Your task to perform on an android device: What's the weather going to be tomorrow? Image 0: 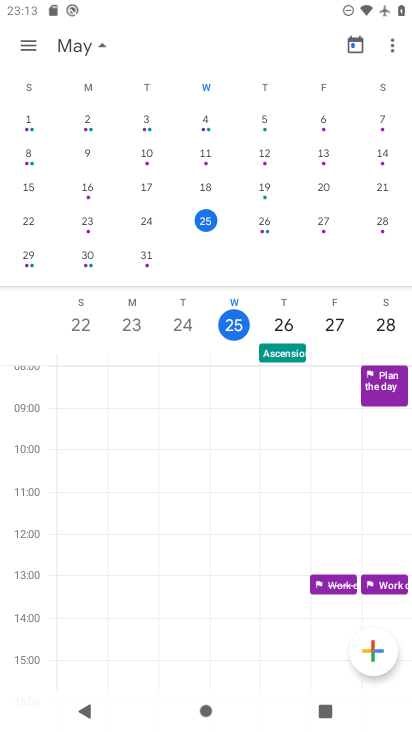
Step 0: press home button
Your task to perform on an android device: What's the weather going to be tomorrow? Image 1: 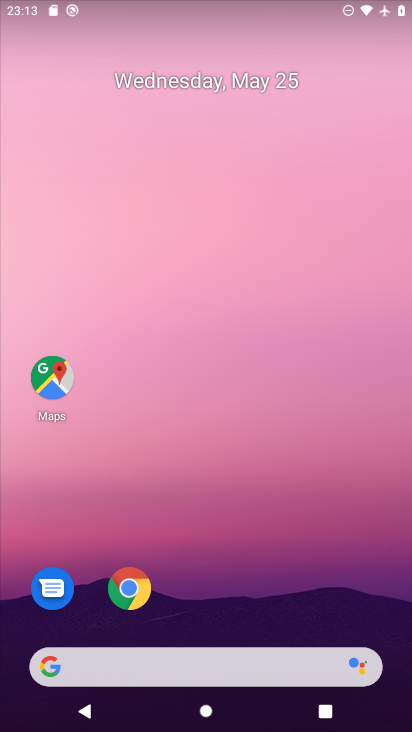
Step 1: drag from (238, 605) to (309, 119)
Your task to perform on an android device: What's the weather going to be tomorrow? Image 2: 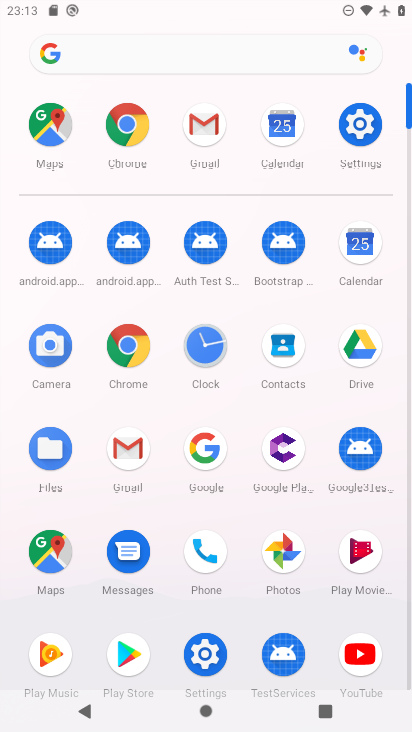
Step 2: click (120, 335)
Your task to perform on an android device: What's the weather going to be tomorrow? Image 3: 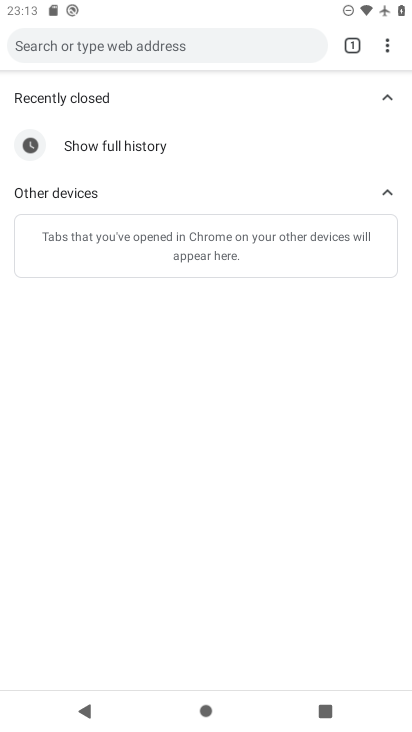
Step 3: click (205, 55)
Your task to perform on an android device: What's the weather going to be tomorrow? Image 4: 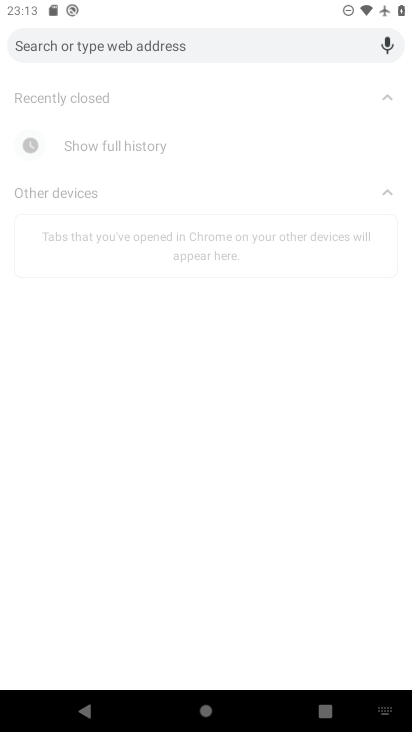
Step 4: type "weather"
Your task to perform on an android device: What's the weather going to be tomorrow? Image 5: 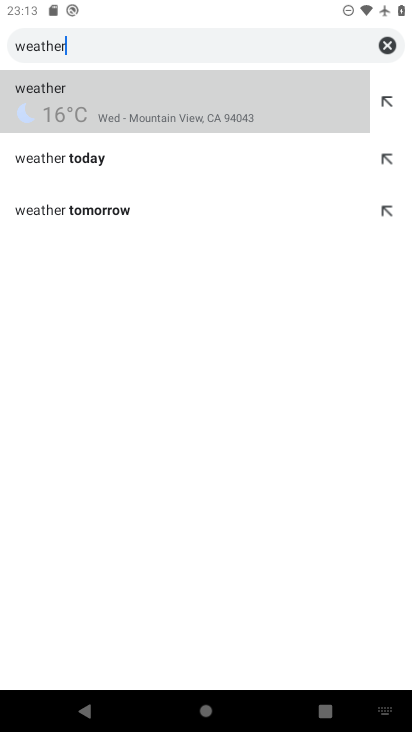
Step 5: click (90, 113)
Your task to perform on an android device: What's the weather going to be tomorrow? Image 6: 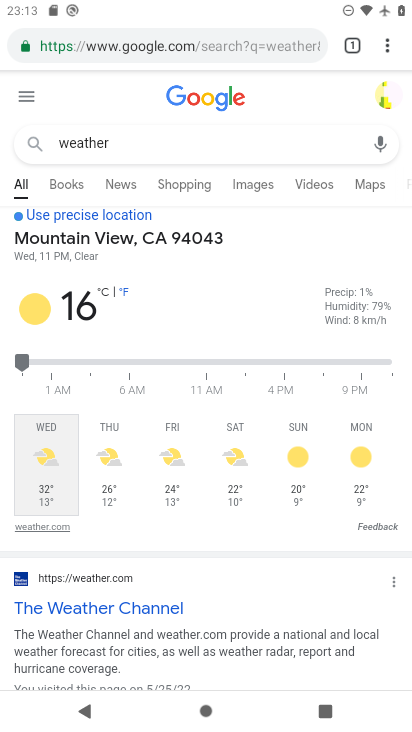
Step 6: click (98, 448)
Your task to perform on an android device: What's the weather going to be tomorrow? Image 7: 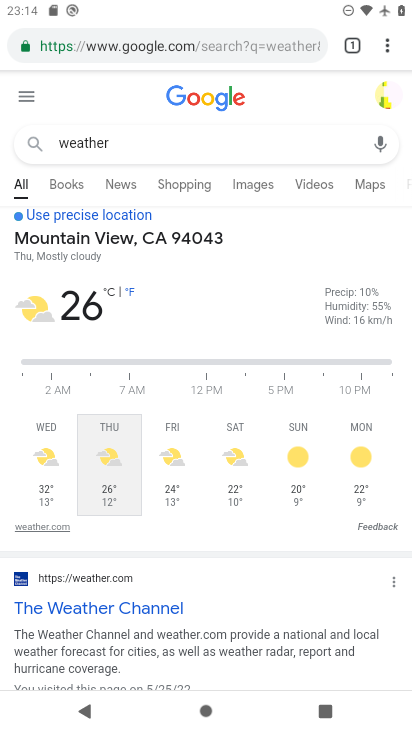
Step 7: task complete